Your task to perform on an android device: Show me popular videos on Youtube Image 0: 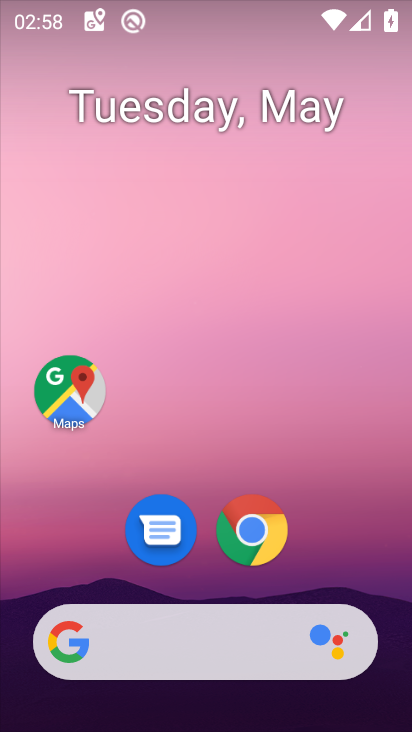
Step 0: press home button
Your task to perform on an android device: Show me popular videos on Youtube Image 1: 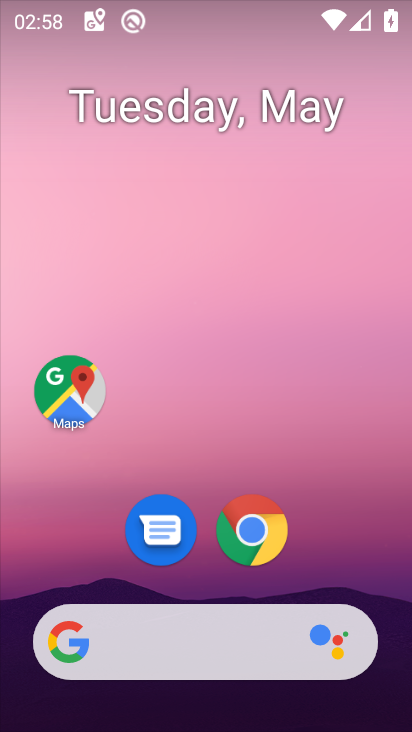
Step 1: drag from (23, 621) to (282, 127)
Your task to perform on an android device: Show me popular videos on Youtube Image 2: 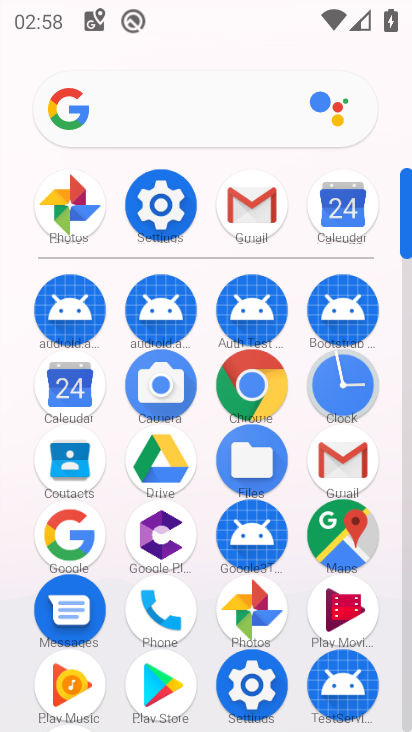
Step 2: drag from (32, 533) to (275, 178)
Your task to perform on an android device: Show me popular videos on Youtube Image 3: 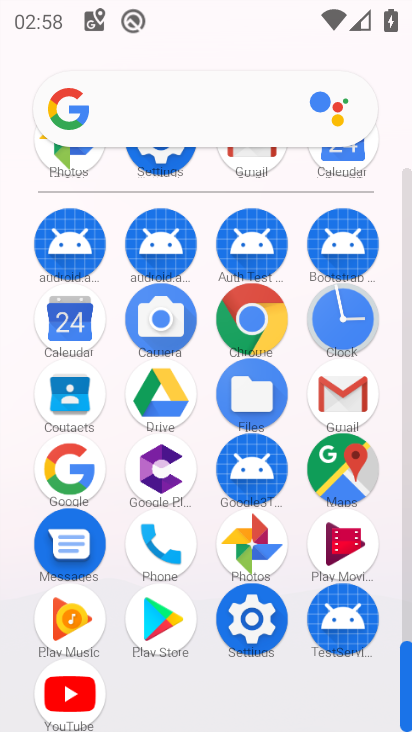
Step 3: click (68, 682)
Your task to perform on an android device: Show me popular videos on Youtube Image 4: 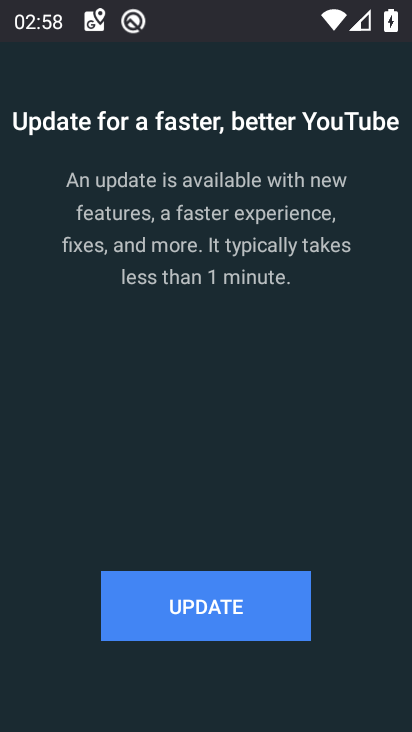
Step 4: task complete